Your task to perform on an android device: Is it going to rain tomorrow? Image 0: 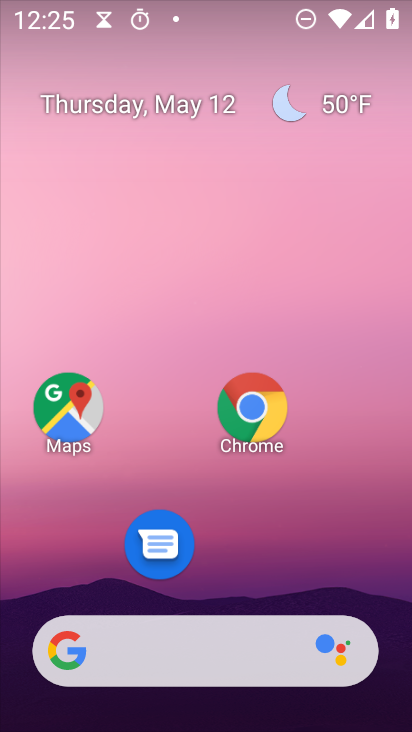
Step 0: click (360, 88)
Your task to perform on an android device: Is it going to rain tomorrow? Image 1: 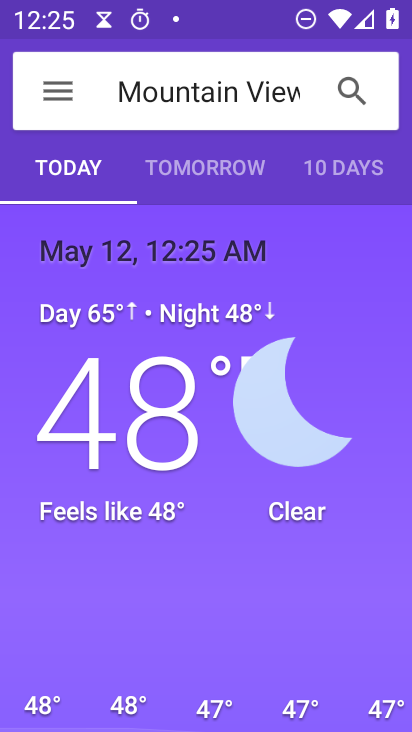
Step 1: click (259, 175)
Your task to perform on an android device: Is it going to rain tomorrow? Image 2: 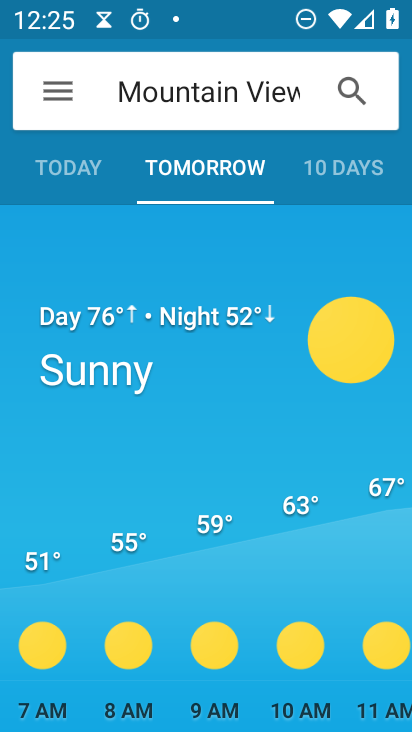
Step 2: task complete